Your task to perform on an android device: turn off smart reply in the gmail app Image 0: 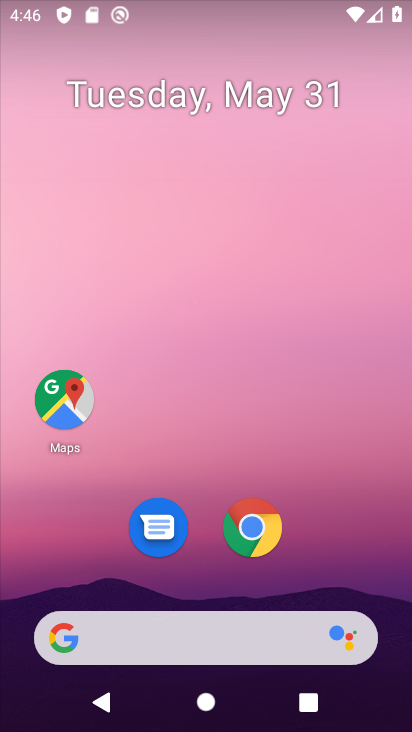
Step 0: drag from (301, 449) to (296, 78)
Your task to perform on an android device: turn off smart reply in the gmail app Image 1: 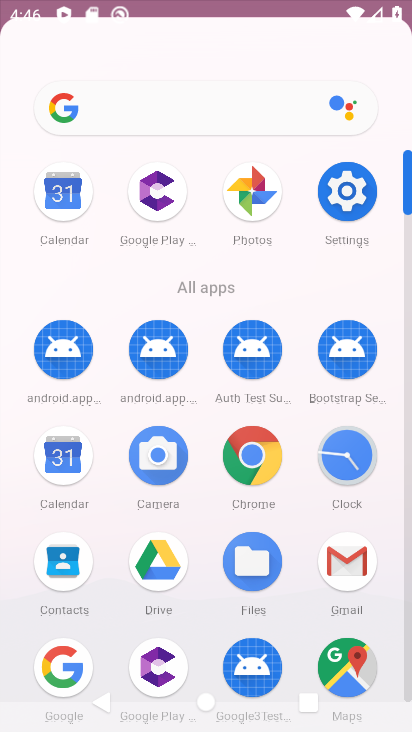
Step 1: drag from (350, 573) to (325, 174)
Your task to perform on an android device: turn off smart reply in the gmail app Image 2: 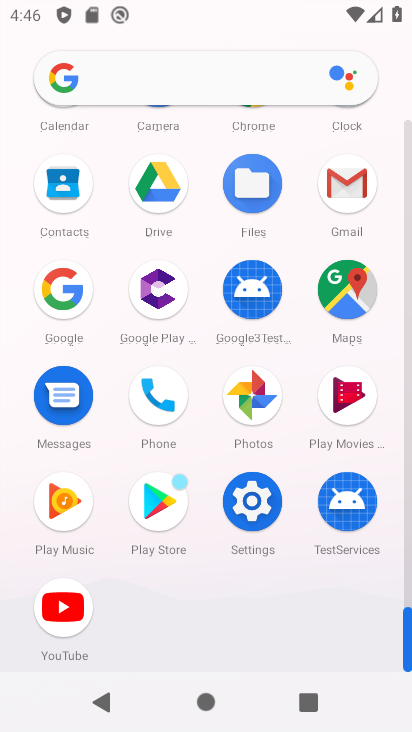
Step 2: click (343, 194)
Your task to perform on an android device: turn off smart reply in the gmail app Image 3: 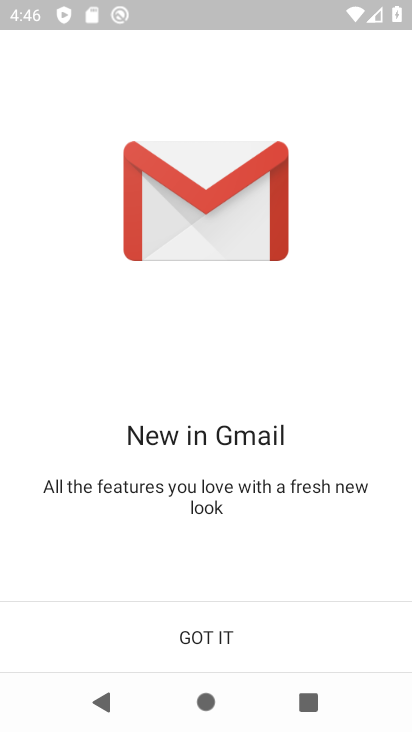
Step 3: click (229, 630)
Your task to perform on an android device: turn off smart reply in the gmail app Image 4: 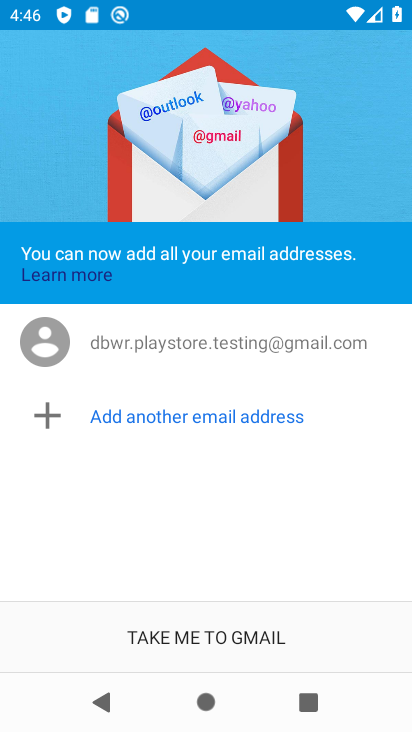
Step 4: click (181, 621)
Your task to perform on an android device: turn off smart reply in the gmail app Image 5: 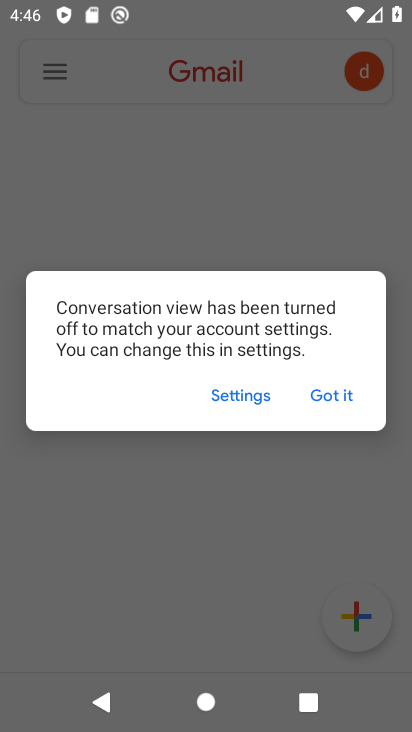
Step 5: click (338, 398)
Your task to perform on an android device: turn off smart reply in the gmail app Image 6: 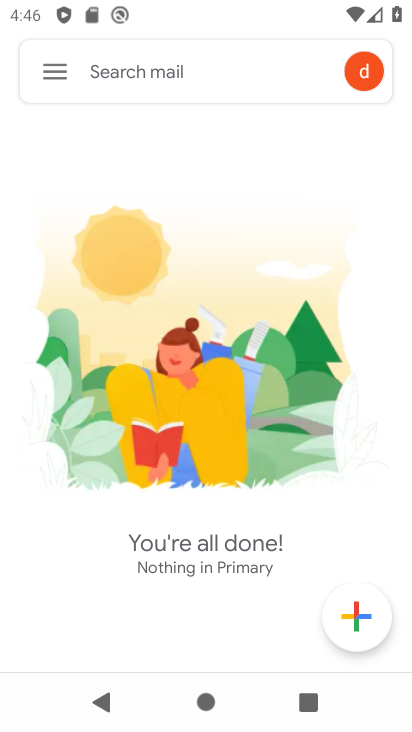
Step 6: click (59, 85)
Your task to perform on an android device: turn off smart reply in the gmail app Image 7: 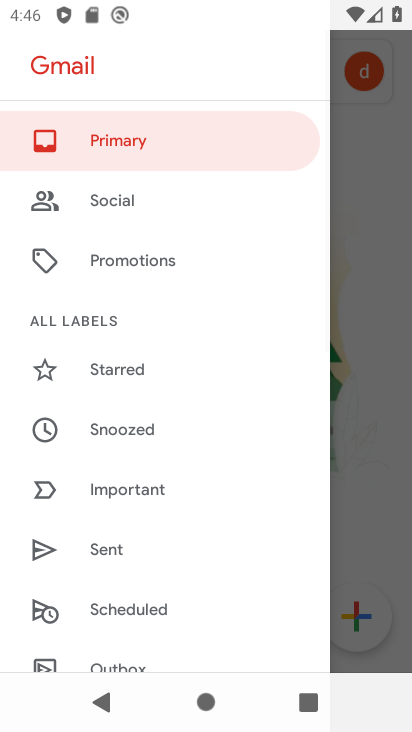
Step 7: drag from (216, 519) to (224, 97)
Your task to perform on an android device: turn off smart reply in the gmail app Image 8: 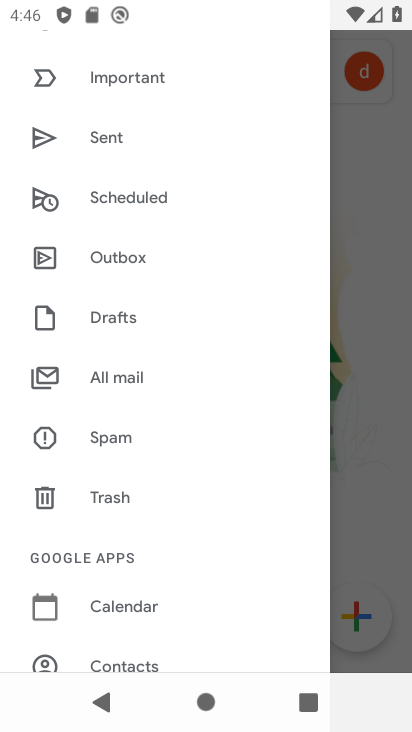
Step 8: drag from (175, 613) to (194, 216)
Your task to perform on an android device: turn off smart reply in the gmail app Image 9: 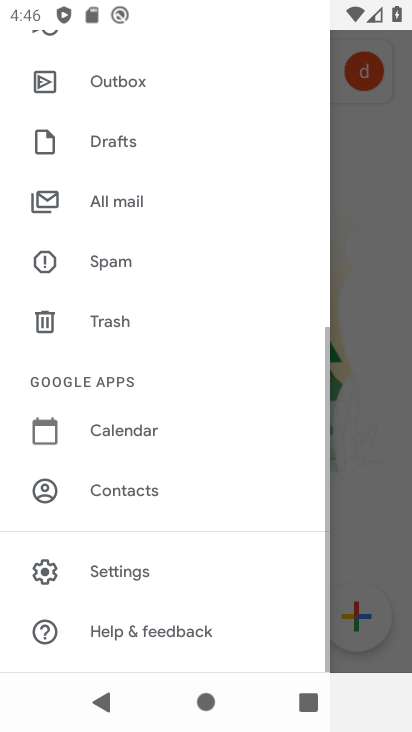
Step 9: click (132, 565)
Your task to perform on an android device: turn off smart reply in the gmail app Image 10: 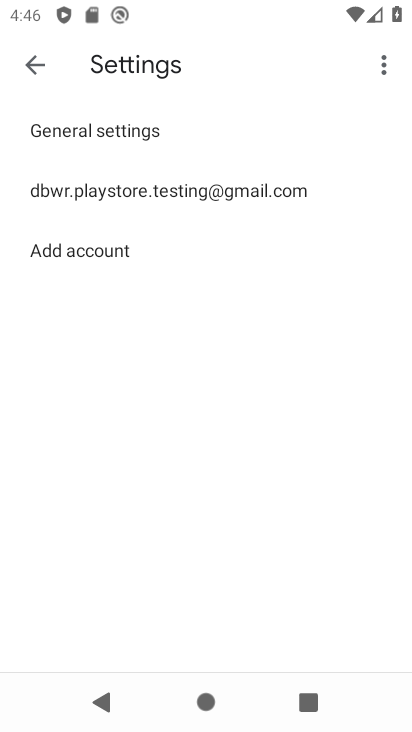
Step 10: click (210, 194)
Your task to perform on an android device: turn off smart reply in the gmail app Image 11: 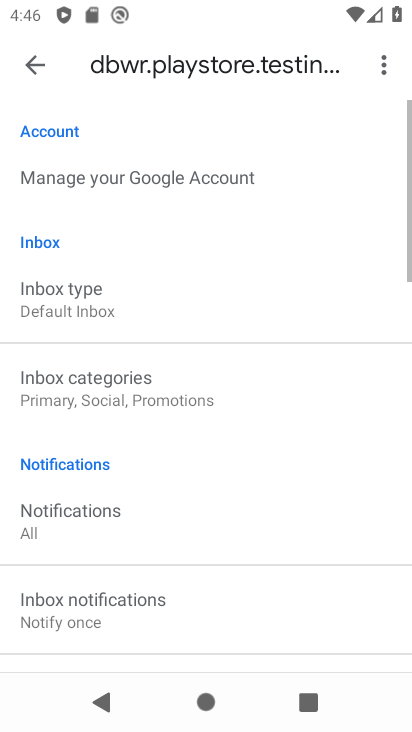
Step 11: drag from (156, 568) to (194, 197)
Your task to perform on an android device: turn off smart reply in the gmail app Image 12: 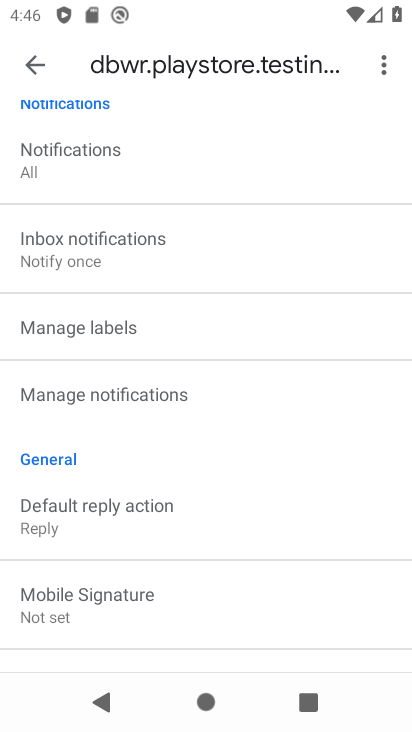
Step 12: drag from (200, 615) to (233, 249)
Your task to perform on an android device: turn off smart reply in the gmail app Image 13: 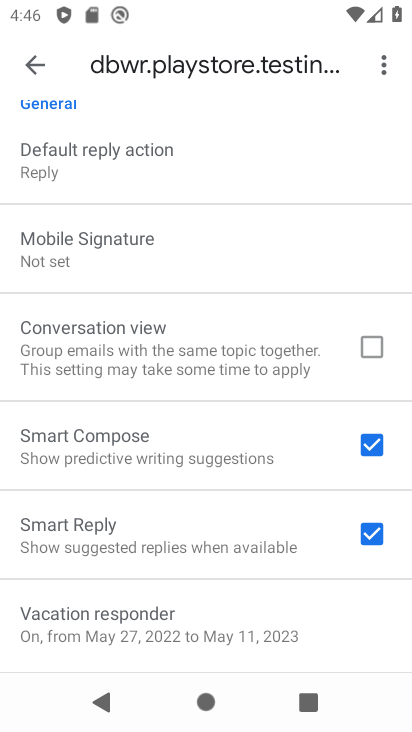
Step 13: click (372, 528)
Your task to perform on an android device: turn off smart reply in the gmail app Image 14: 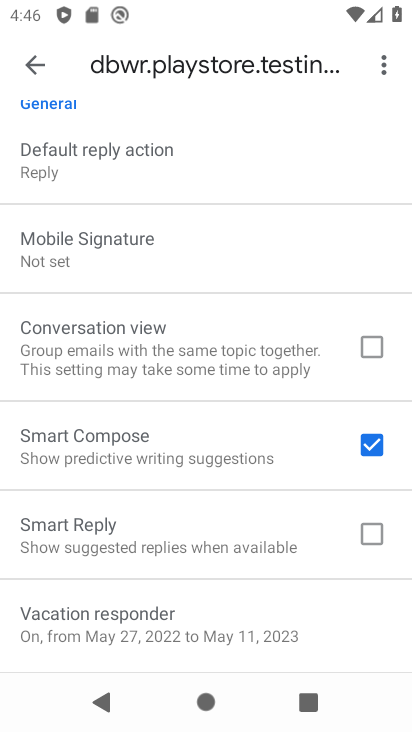
Step 14: task complete